Your task to perform on an android device: empty trash in google photos Image 0: 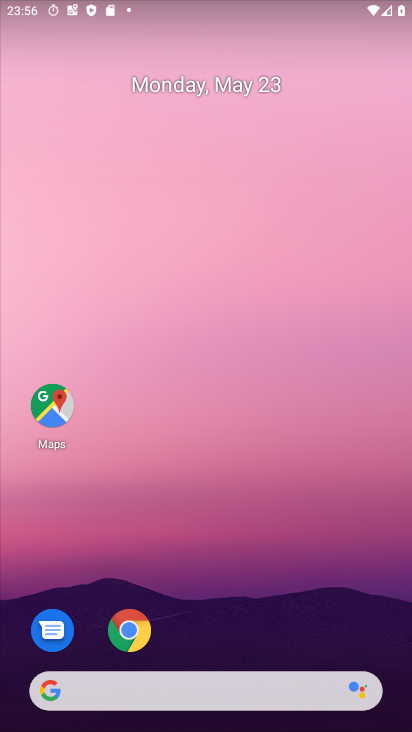
Step 0: drag from (351, 650) to (412, 46)
Your task to perform on an android device: empty trash in google photos Image 1: 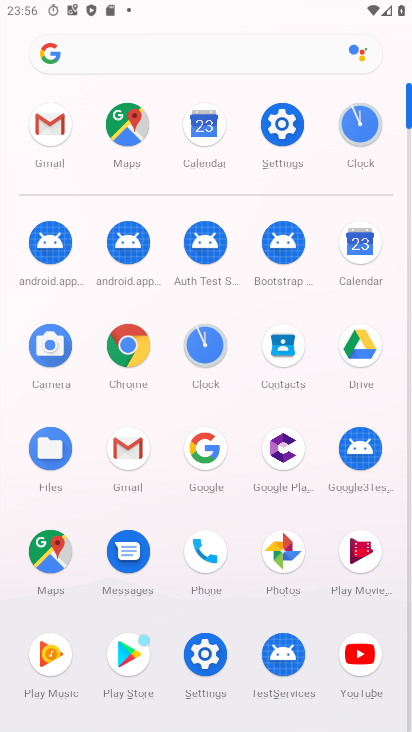
Step 1: click (284, 550)
Your task to perform on an android device: empty trash in google photos Image 2: 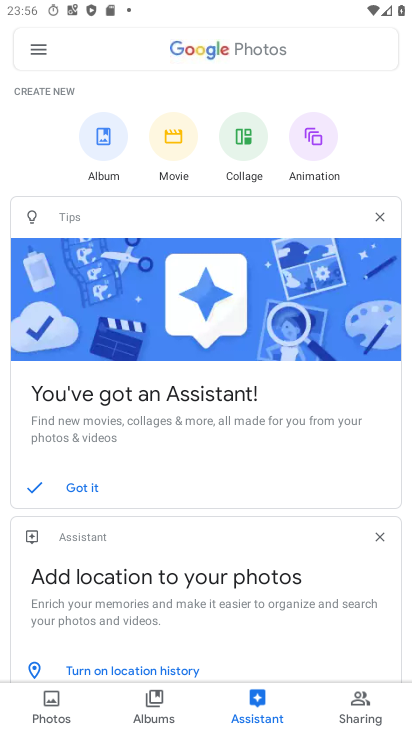
Step 2: click (35, 50)
Your task to perform on an android device: empty trash in google photos Image 3: 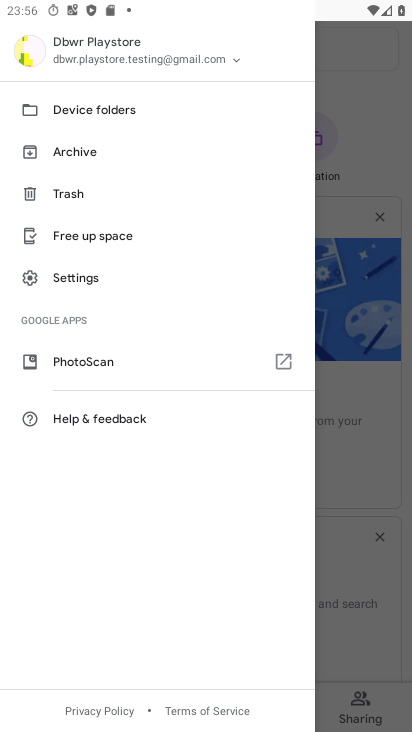
Step 3: click (46, 195)
Your task to perform on an android device: empty trash in google photos Image 4: 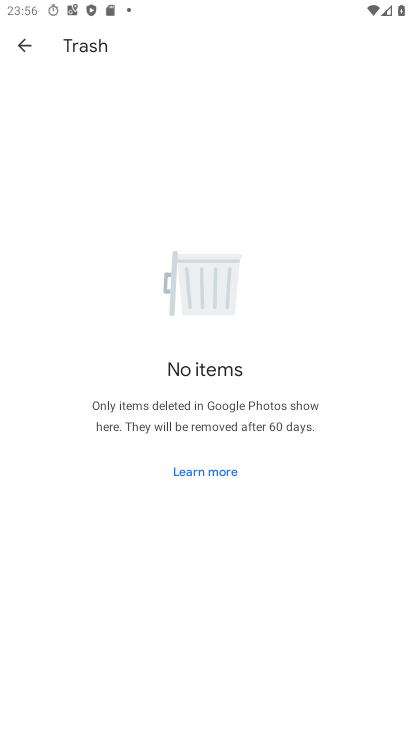
Step 4: task complete